Your task to perform on an android device: Open location settings Image 0: 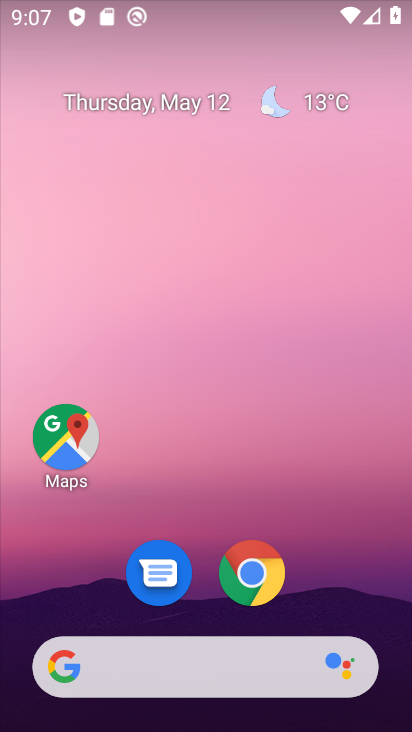
Step 0: drag from (397, 561) to (403, 277)
Your task to perform on an android device: Open location settings Image 1: 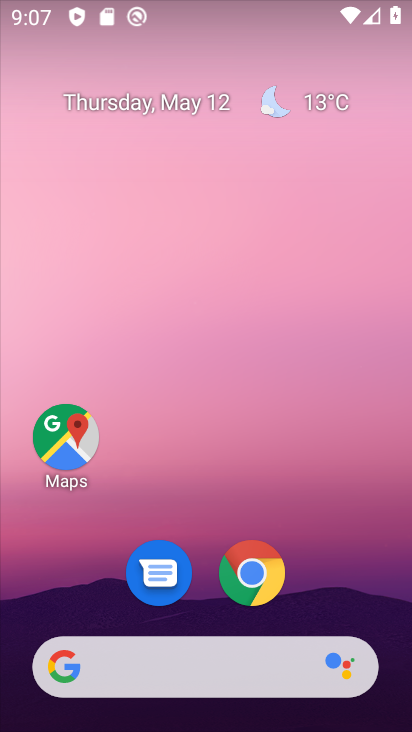
Step 1: drag from (398, 672) to (405, 188)
Your task to perform on an android device: Open location settings Image 2: 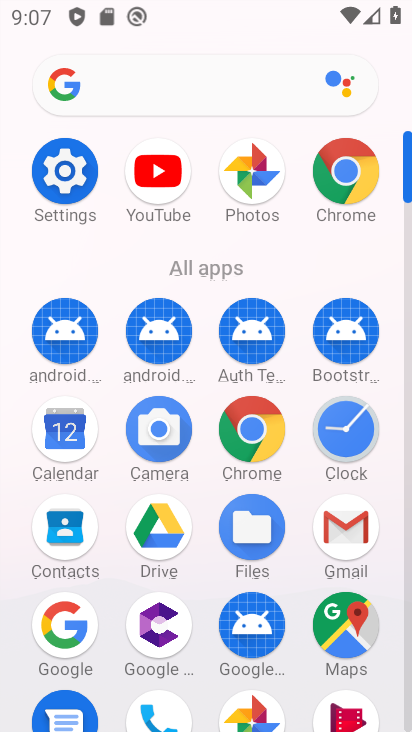
Step 2: click (73, 176)
Your task to perform on an android device: Open location settings Image 3: 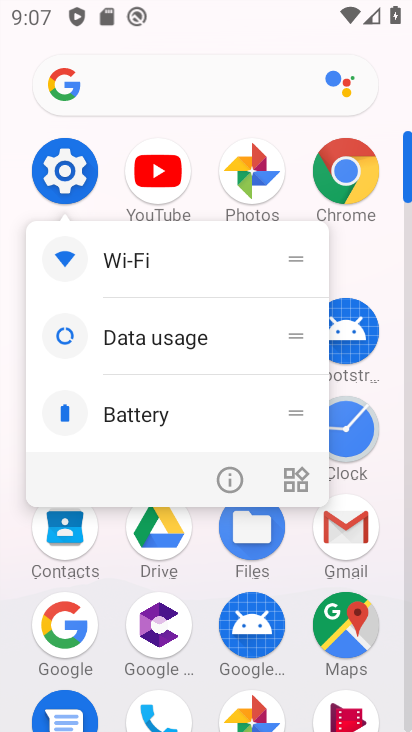
Step 3: click (64, 160)
Your task to perform on an android device: Open location settings Image 4: 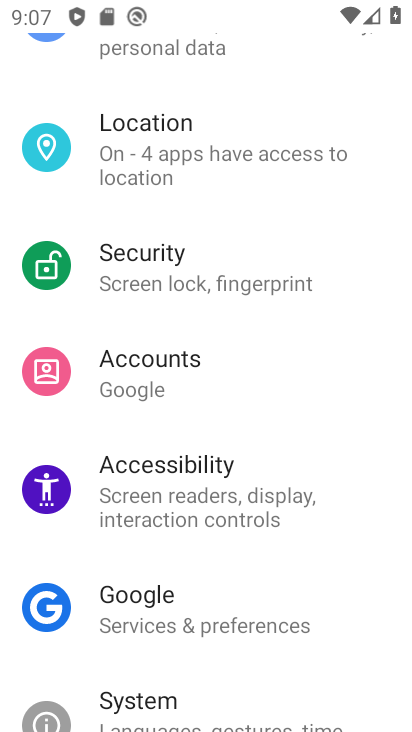
Step 4: click (146, 125)
Your task to perform on an android device: Open location settings Image 5: 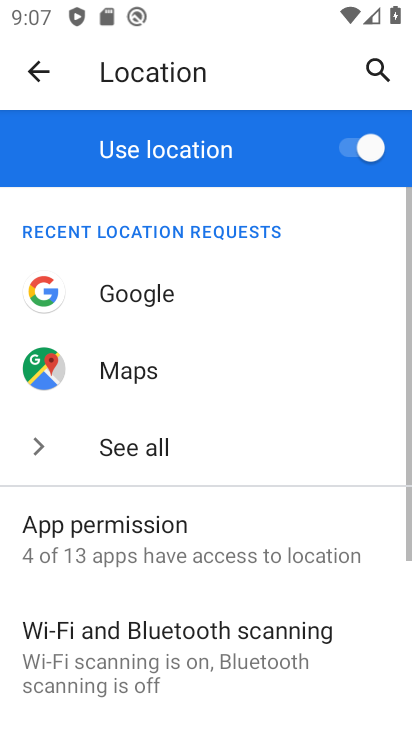
Step 5: drag from (327, 610) to (355, 363)
Your task to perform on an android device: Open location settings Image 6: 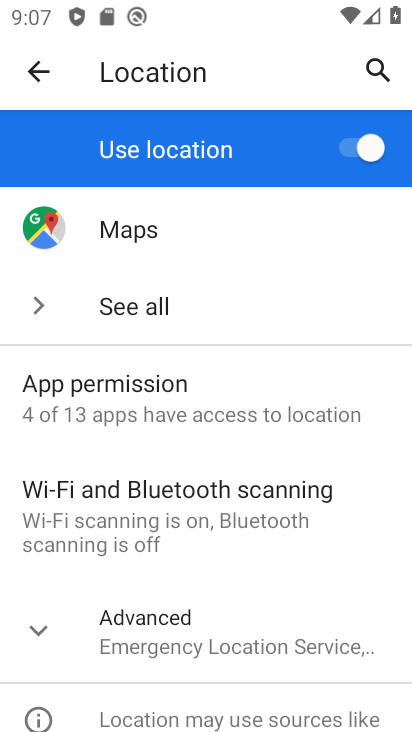
Step 6: click (39, 639)
Your task to perform on an android device: Open location settings Image 7: 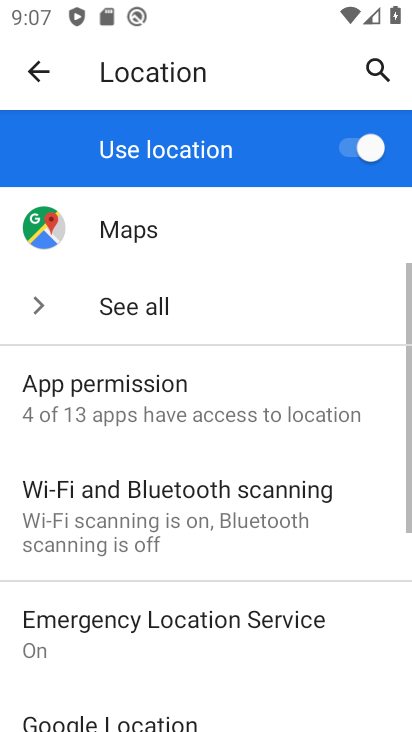
Step 7: task complete